Your task to perform on an android device: Search for vegetarian restaurants on Maps Image 0: 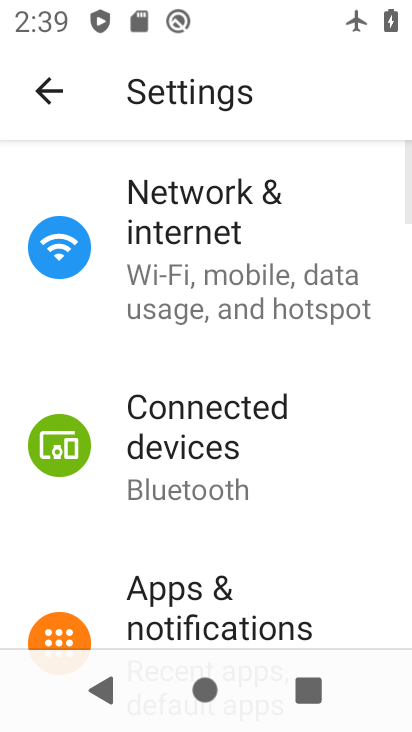
Step 0: press home button
Your task to perform on an android device: Search for vegetarian restaurants on Maps Image 1: 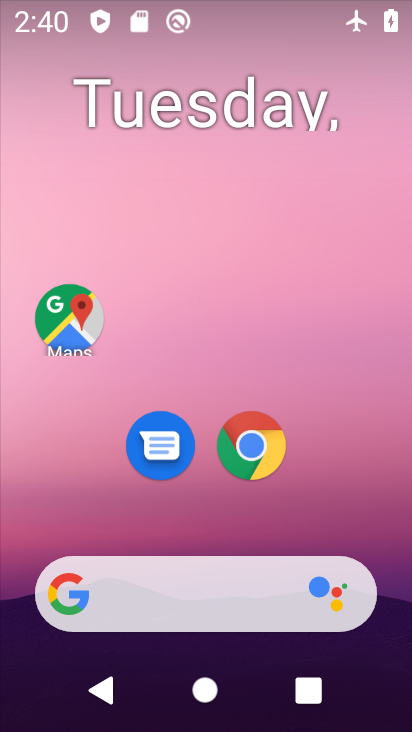
Step 1: click (76, 337)
Your task to perform on an android device: Search for vegetarian restaurants on Maps Image 2: 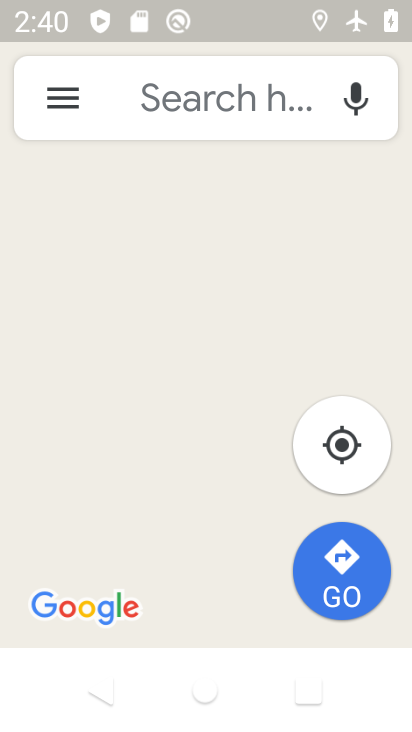
Step 2: click (207, 91)
Your task to perform on an android device: Search for vegetarian restaurants on Maps Image 3: 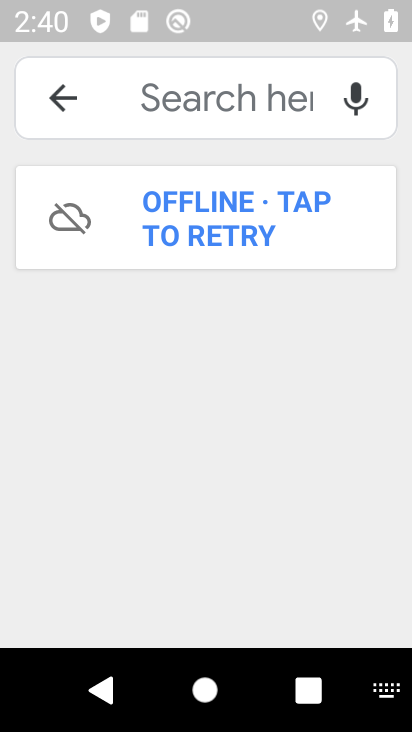
Step 3: click (207, 91)
Your task to perform on an android device: Search for vegetarian restaurants on Maps Image 4: 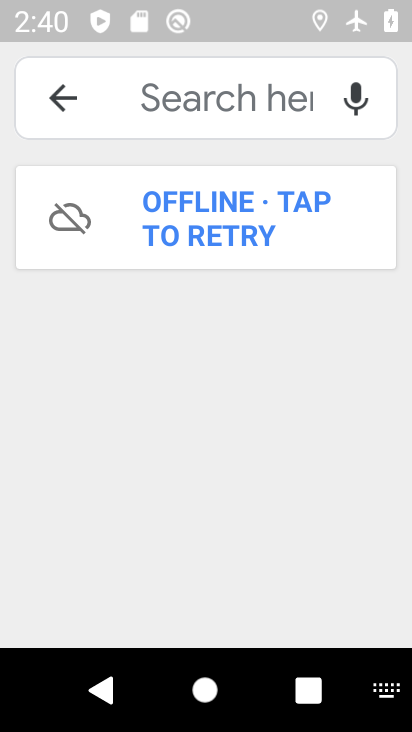
Step 4: type "vegetarian restaurants"
Your task to perform on an android device: Search for vegetarian restaurants on Maps Image 5: 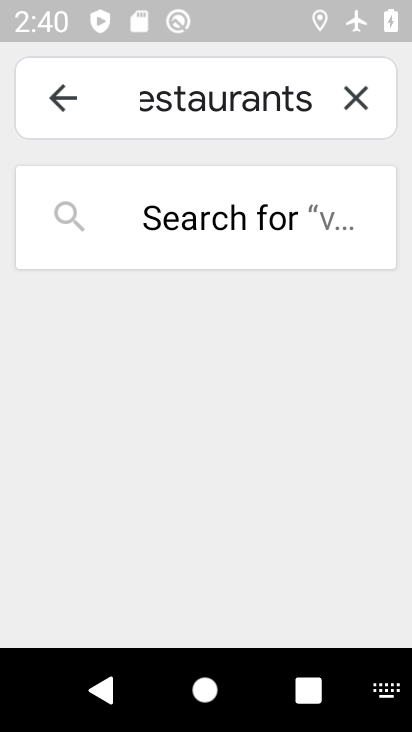
Step 5: click (293, 235)
Your task to perform on an android device: Search for vegetarian restaurants on Maps Image 6: 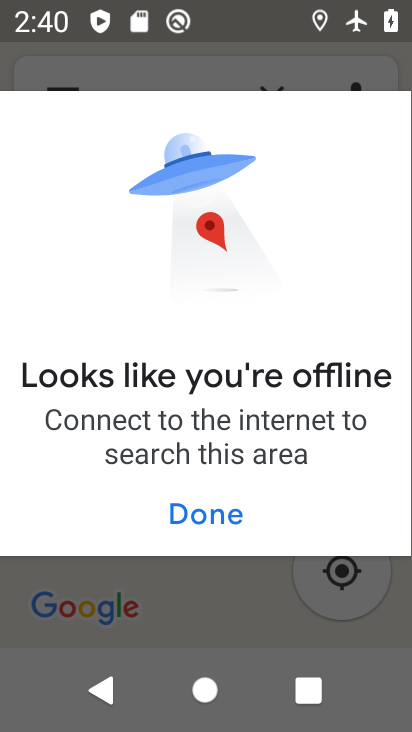
Step 6: click (233, 519)
Your task to perform on an android device: Search for vegetarian restaurants on Maps Image 7: 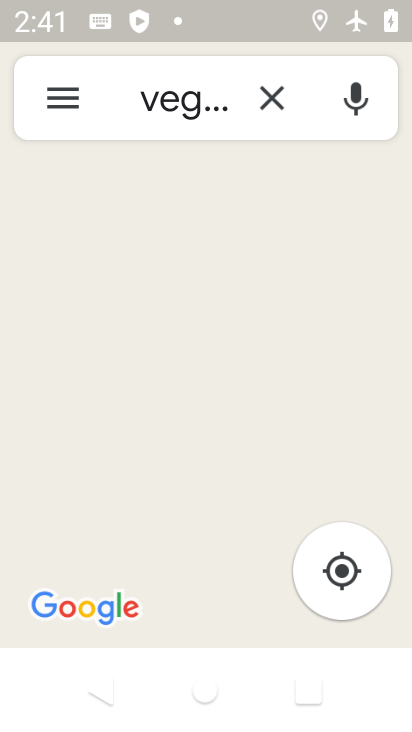
Step 7: task complete